Your task to perform on an android device: change text size in settings app Image 0: 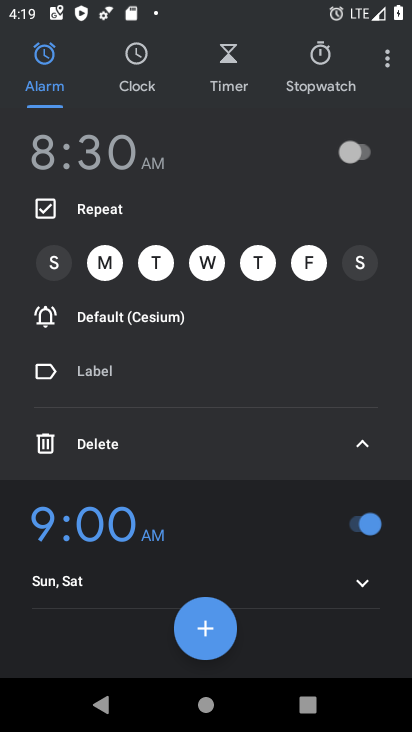
Step 0: press home button
Your task to perform on an android device: change text size in settings app Image 1: 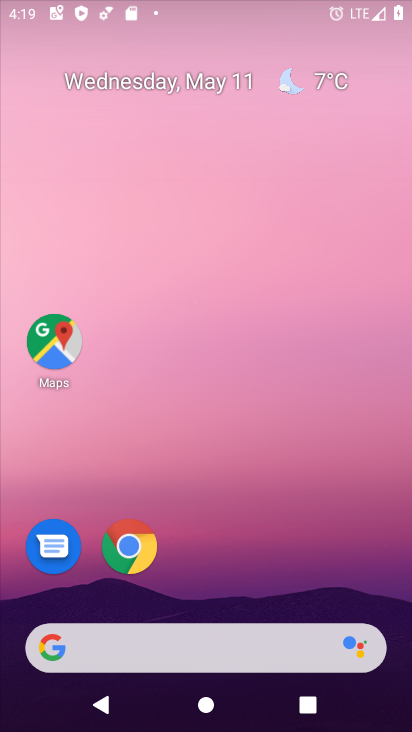
Step 1: drag from (320, 577) to (410, 57)
Your task to perform on an android device: change text size in settings app Image 2: 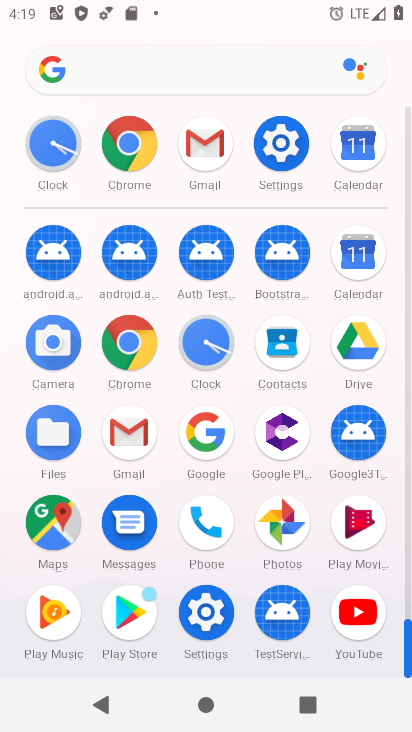
Step 2: click (285, 153)
Your task to perform on an android device: change text size in settings app Image 3: 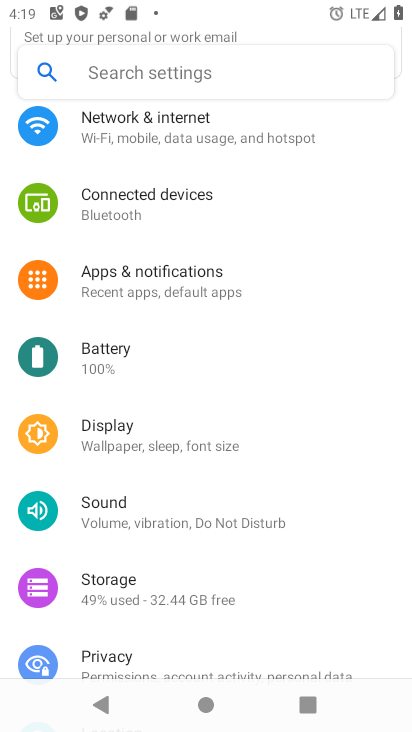
Step 3: drag from (156, 239) to (172, 622)
Your task to perform on an android device: change text size in settings app Image 4: 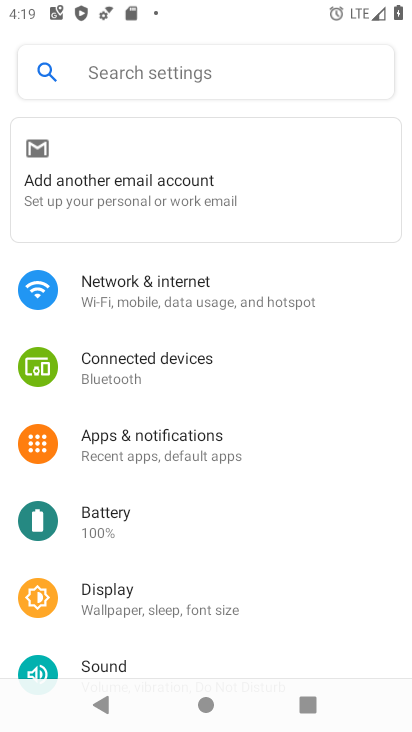
Step 4: click (198, 303)
Your task to perform on an android device: change text size in settings app Image 5: 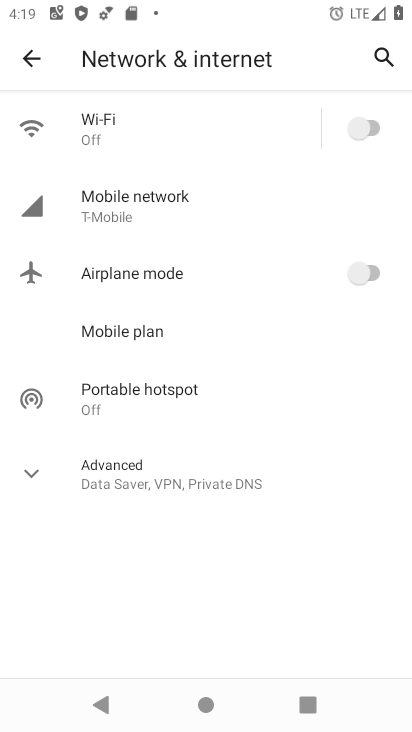
Step 5: press back button
Your task to perform on an android device: change text size in settings app Image 6: 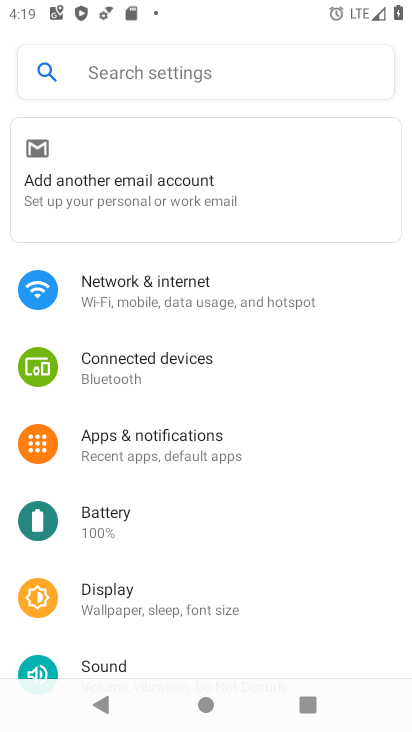
Step 6: drag from (292, 641) to (373, 6)
Your task to perform on an android device: change text size in settings app Image 7: 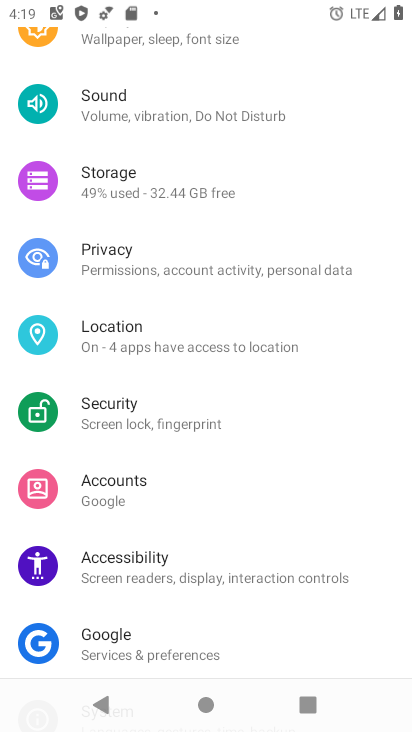
Step 7: drag from (204, 647) to (372, 89)
Your task to perform on an android device: change text size in settings app Image 8: 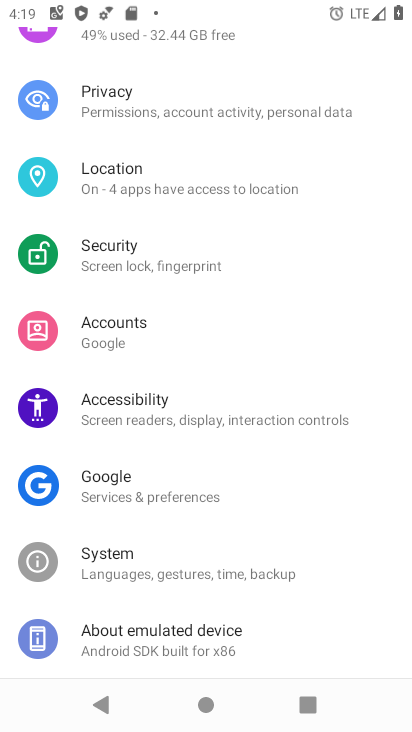
Step 8: click (256, 394)
Your task to perform on an android device: change text size in settings app Image 9: 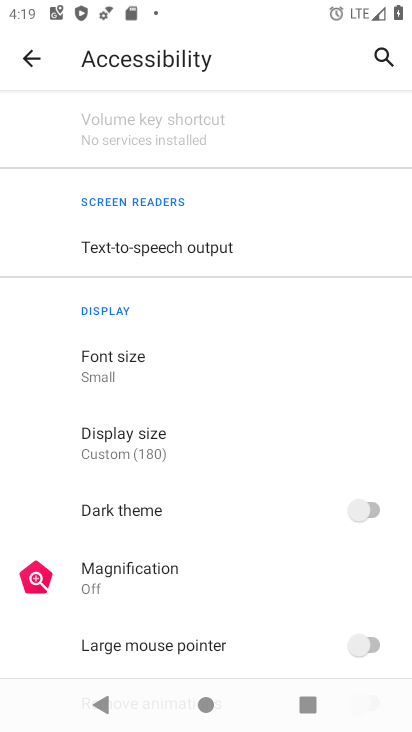
Step 9: drag from (254, 638) to (313, 303)
Your task to perform on an android device: change text size in settings app Image 10: 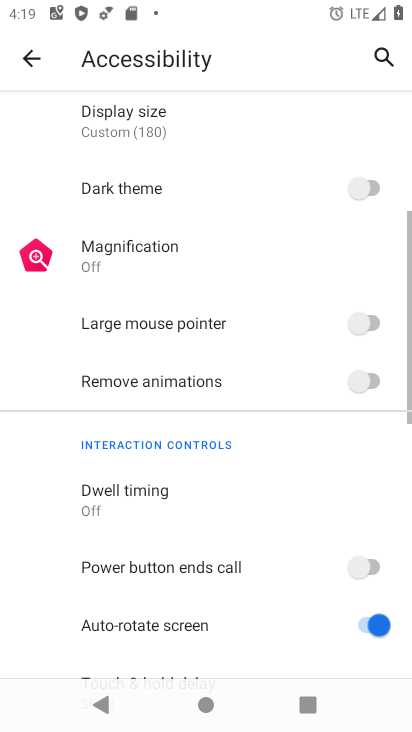
Step 10: drag from (313, 303) to (267, 409)
Your task to perform on an android device: change text size in settings app Image 11: 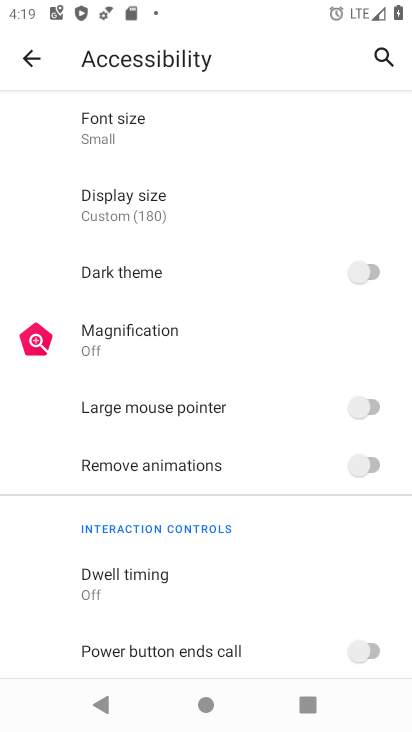
Step 11: click (176, 144)
Your task to perform on an android device: change text size in settings app Image 12: 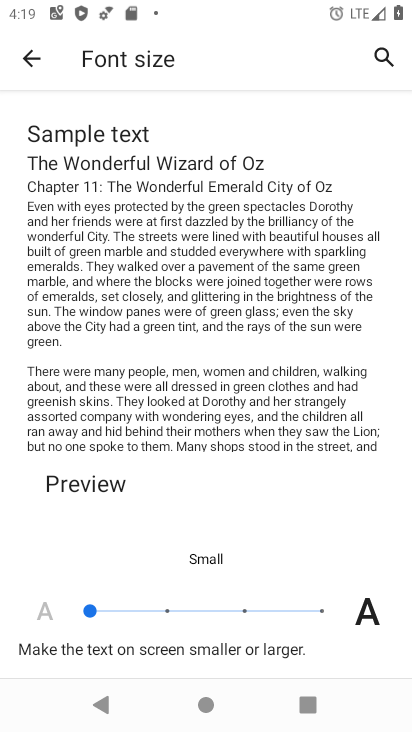
Step 12: click (153, 609)
Your task to perform on an android device: change text size in settings app Image 13: 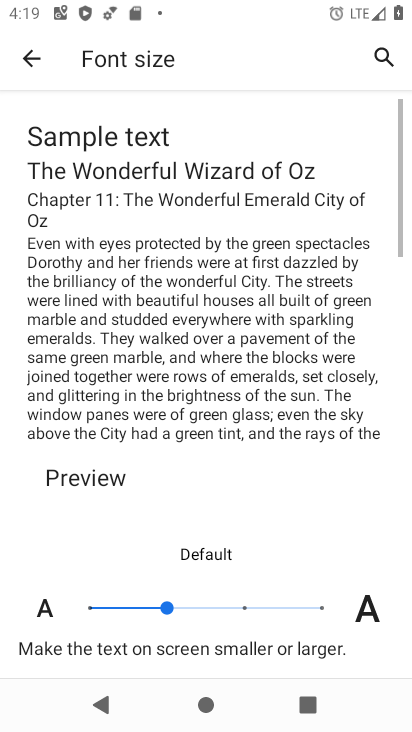
Step 13: task complete